Your task to perform on an android device: make emails show in primary in the gmail app Image 0: 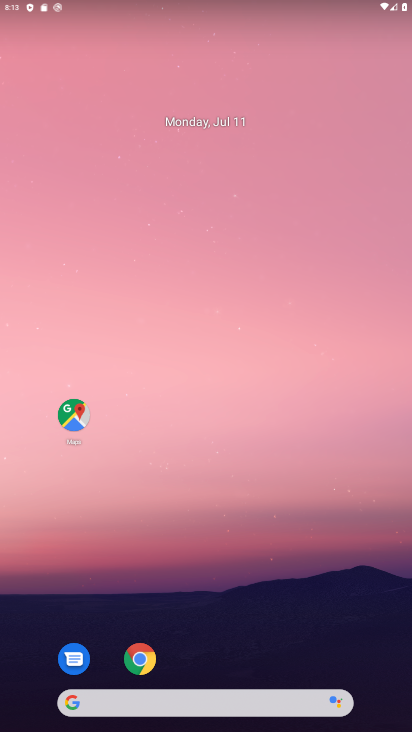
Step 0: drag from (64, 655) to (182, 56)
Your task to perform on an android device: make emails show in primary in the gmail app Image 1: 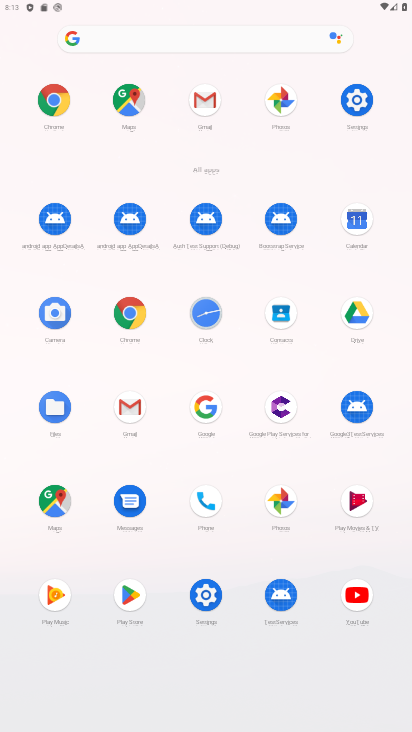
Step 1: click (130, 403)
Your task to perform on an android device: make emails show in primary in the gmail app Image 2: 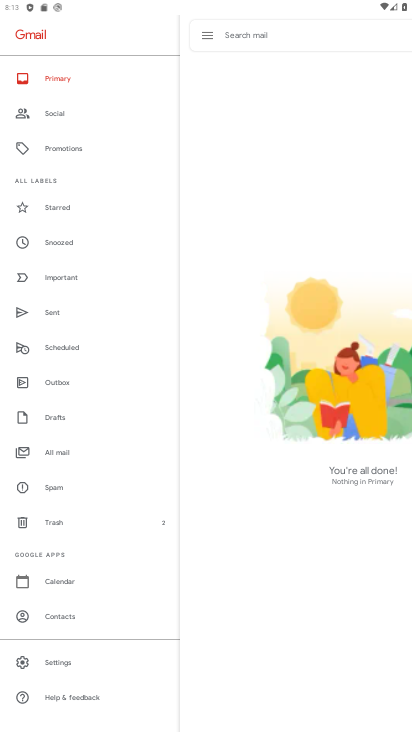
Step 2: click (60, 77)
Your task to perform on an android device: make emails show in primary in the gmail app Image 3: 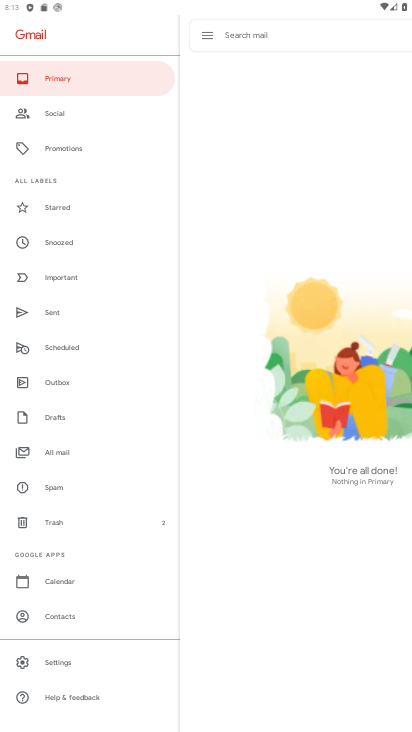
Step 3: task complete